Your task to perform on an android device: install app "Gmail" Image 0: 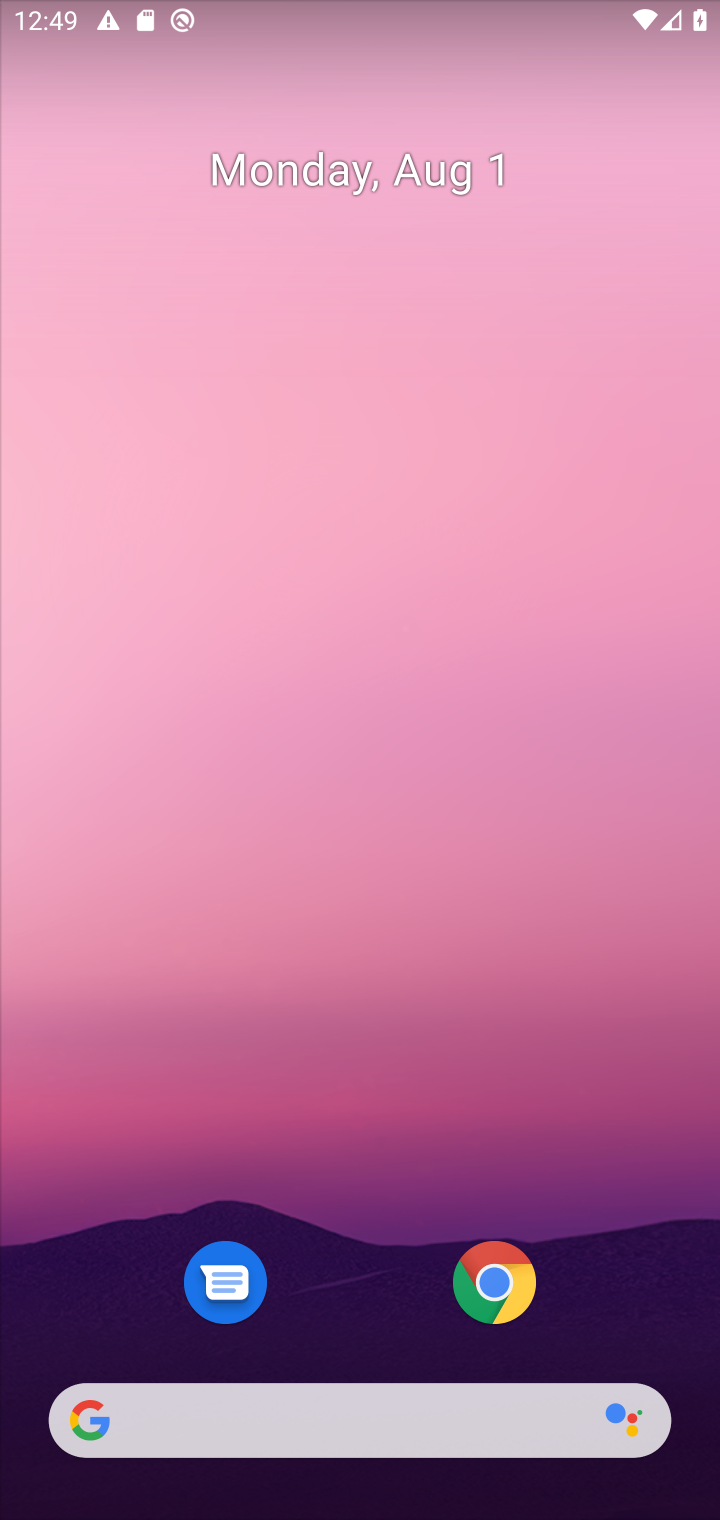
Step 0: drag from (306, 1345) to (649, 0)
Your task to perform on an android device: install app "Gmail" Image 1: 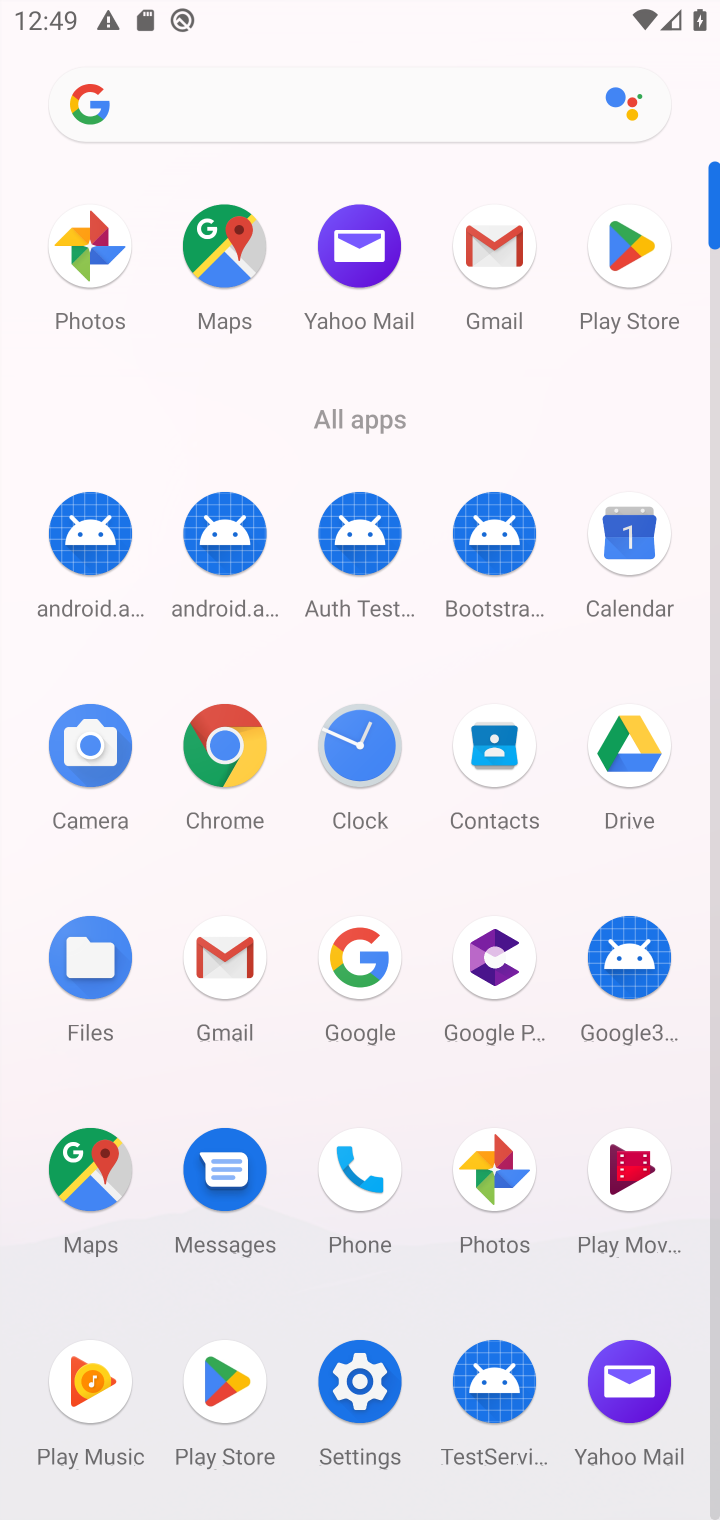
Step 1: click (231, 917)
Your task to perform on an android device: install app "Gmail" Image 2: 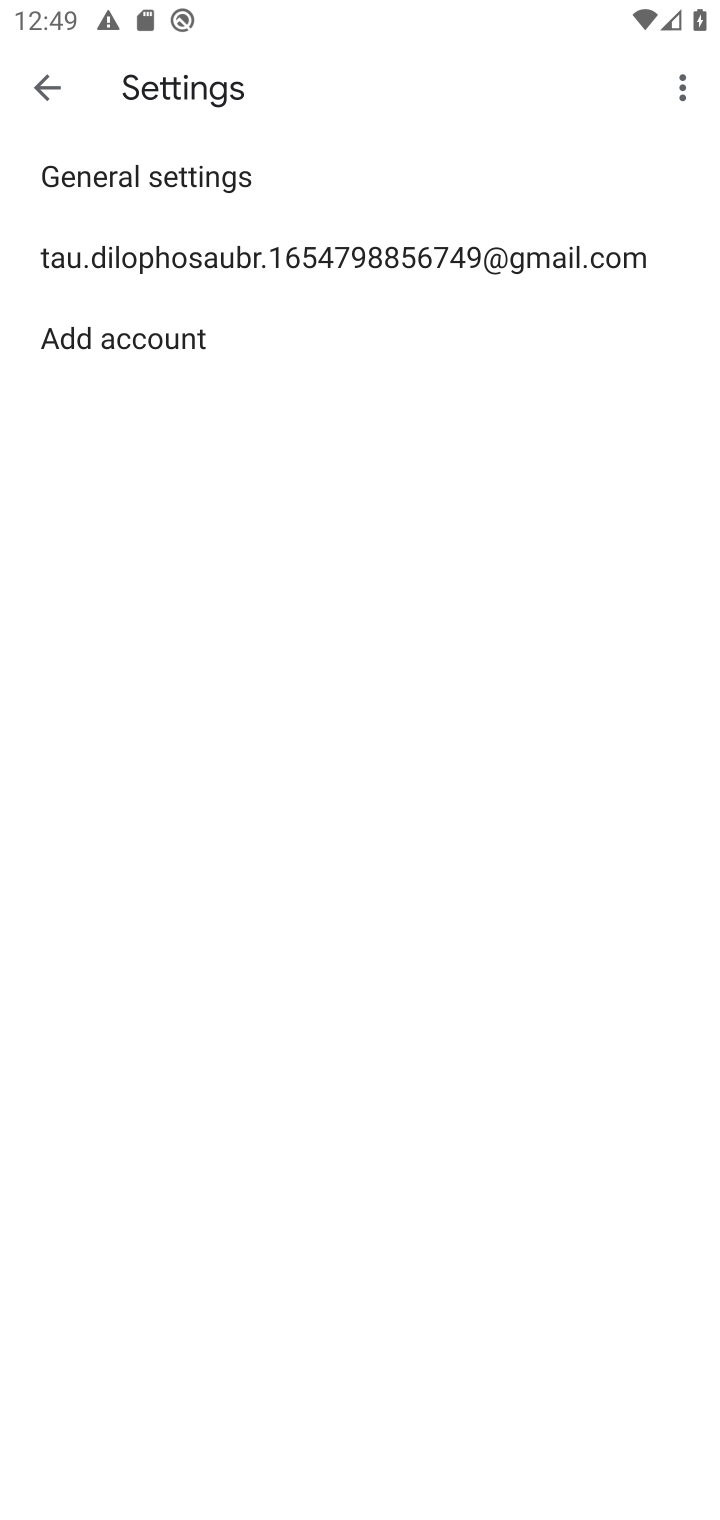
Step 2: click (35, 62)
Your task to perform on an android device: install app "Gmail" Image 3: 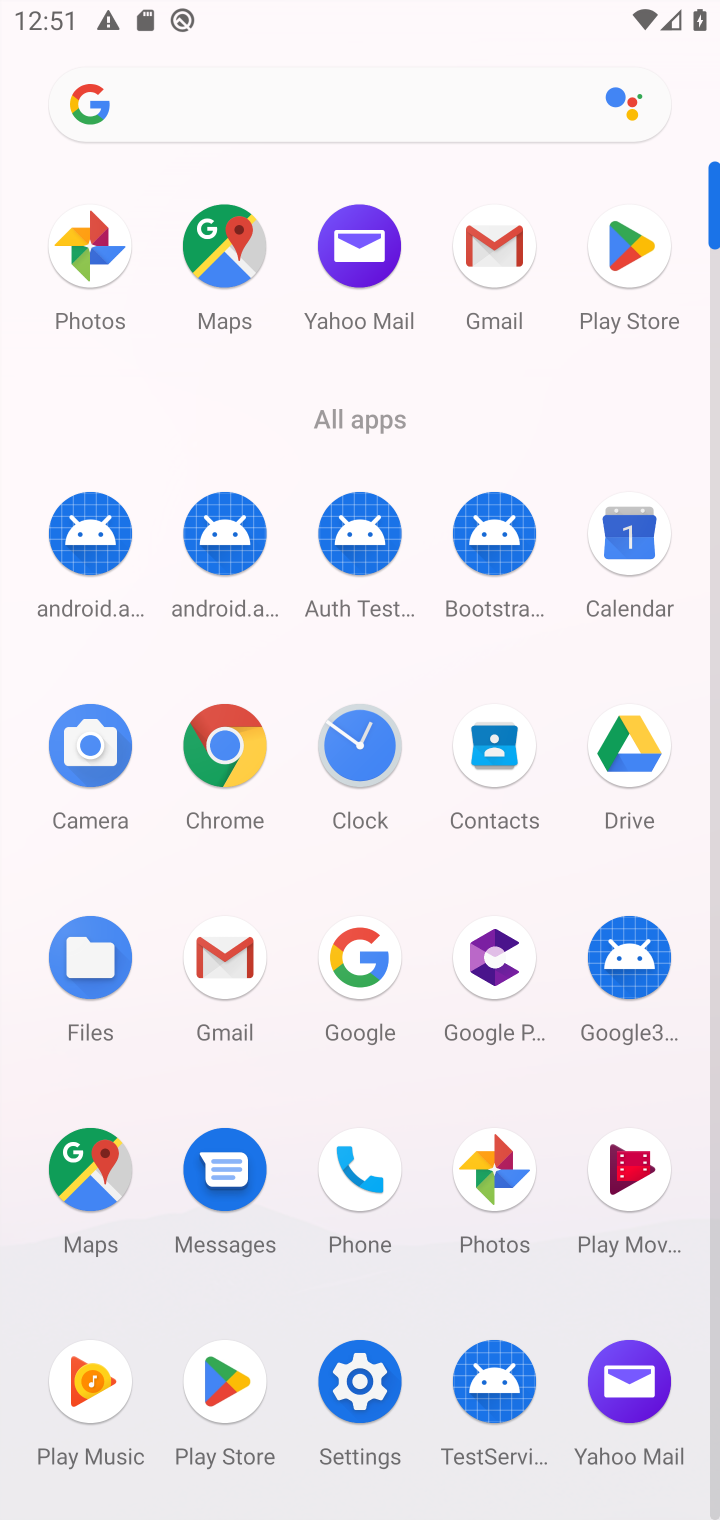
Step 3: click (173, 1008)
Your task to perform on an android device: install app "Gmail" Image 4: 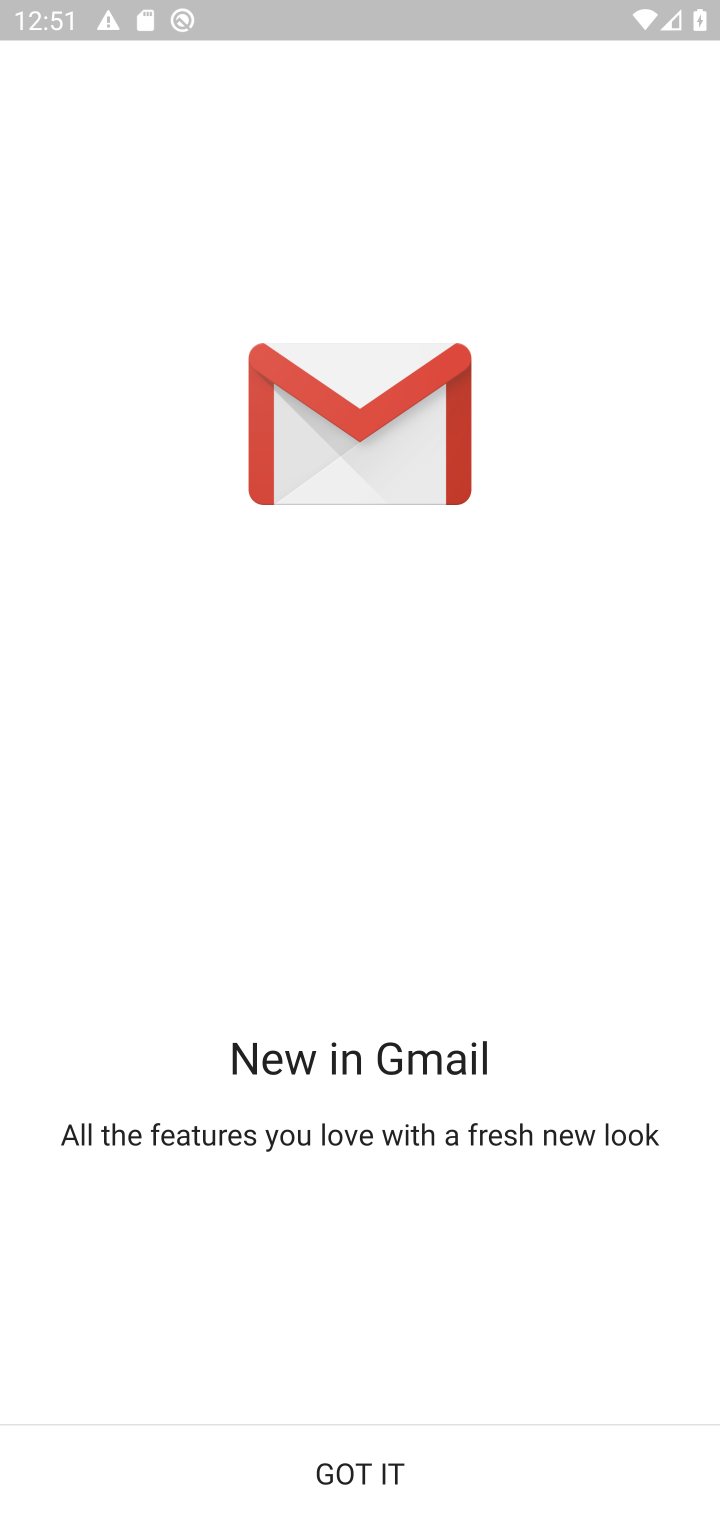
Step 4: click (445, 1473)
Your task to perform on an android device: install app "Gmail" Image 5: 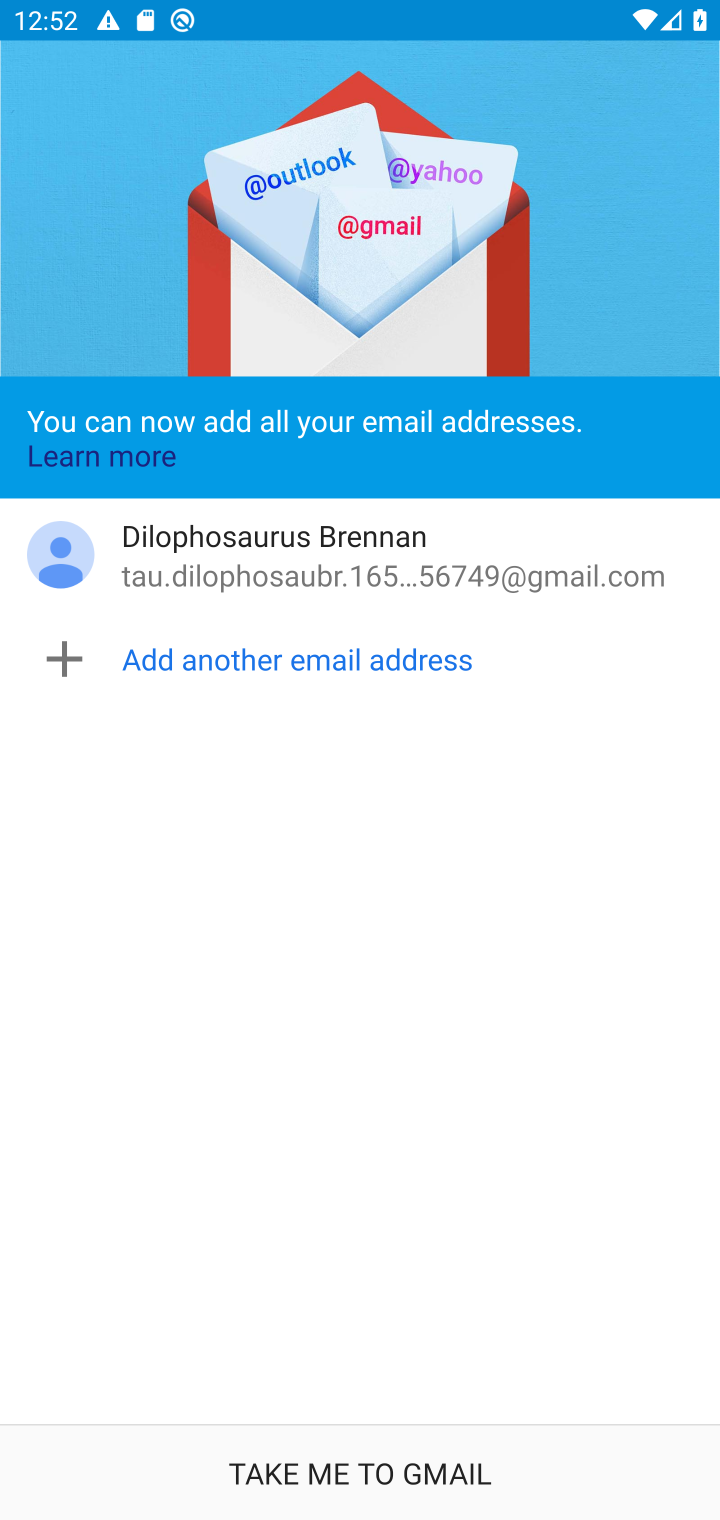
Step 5: click (499, 1471)
Your task to perform on an android device: install app "Gmail" Image 6: 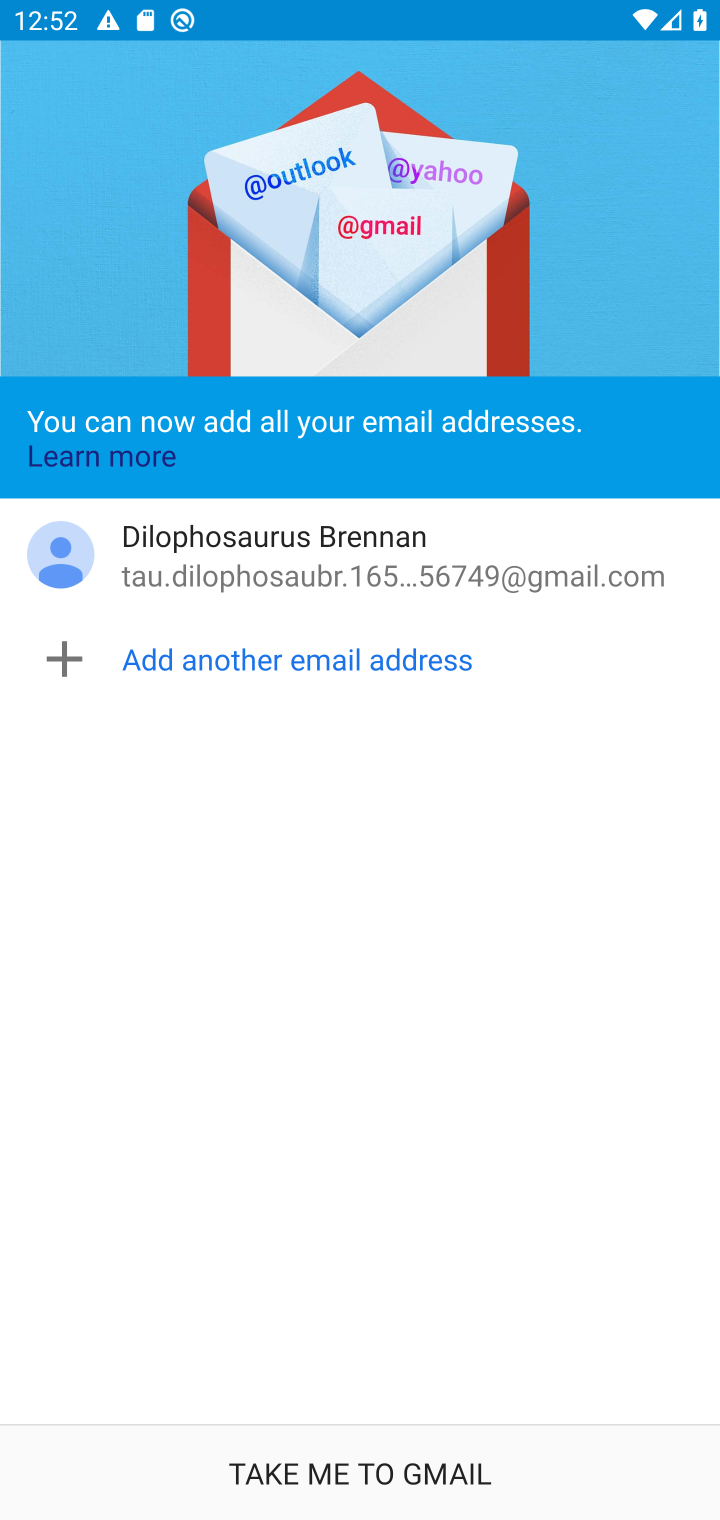
Step 6: task complete